Your task to perform on an android device: find snoozed emails in the gmail app Image 0: 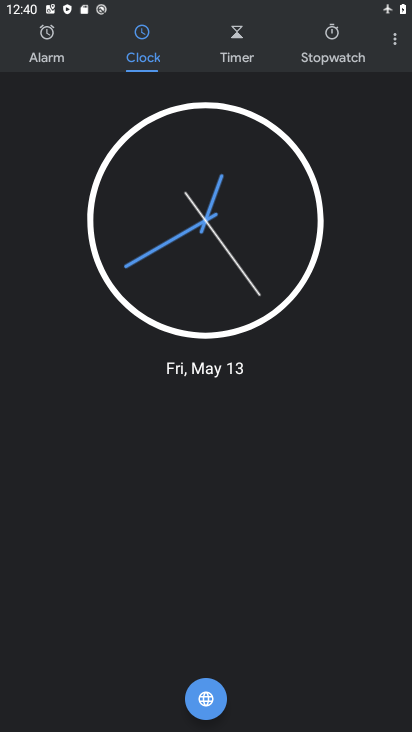
Step 0: press home button
Your task to perform on an android device: find snoozed emails in the gmail app Image 1: 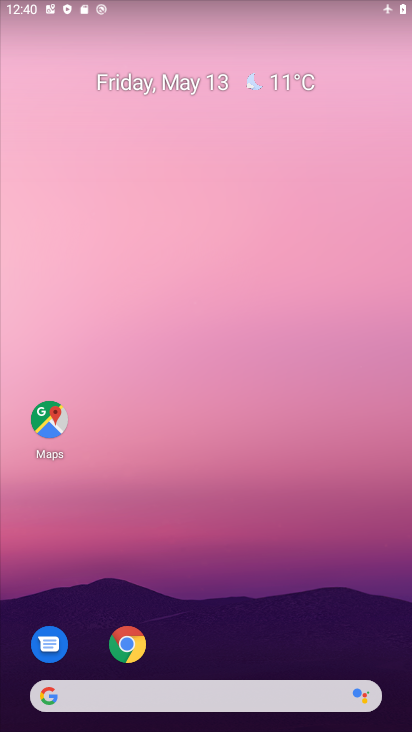
Step 1: drag from (226, 726) to (216, 163)
Your task to perform on an android device: find snoozed emails in the gmail app Image 2: 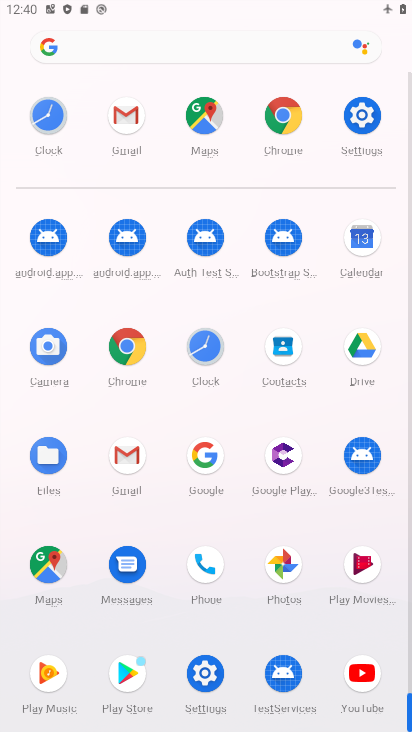
Step 2: click (130, 457)
Your task to perform on an android device: find snoozed emails in the gmail app Image 3: 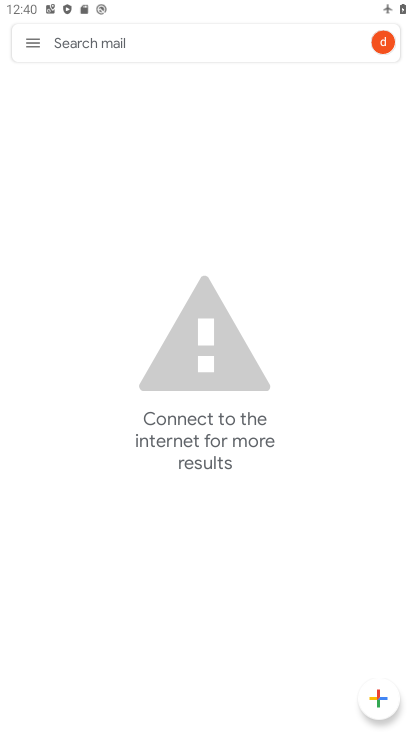
Step 3: click (29, 43)
Your task to perform on an android device: find snoozed emails in the gmail app Image 4: 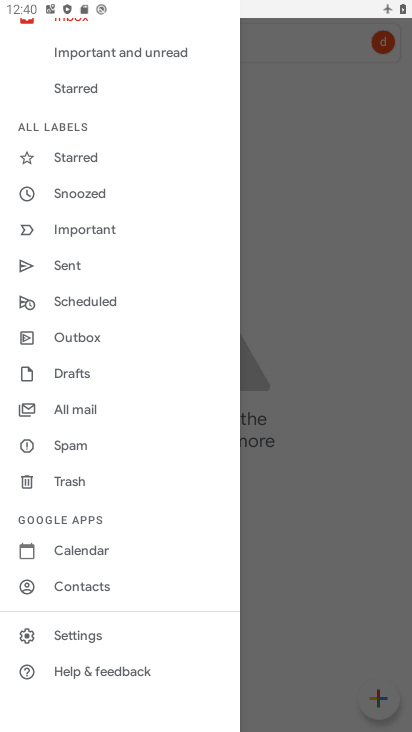
Step 4: click (84, 194)
Your task to perform on an android device: find snoozed emails in the gmail app Image 5: 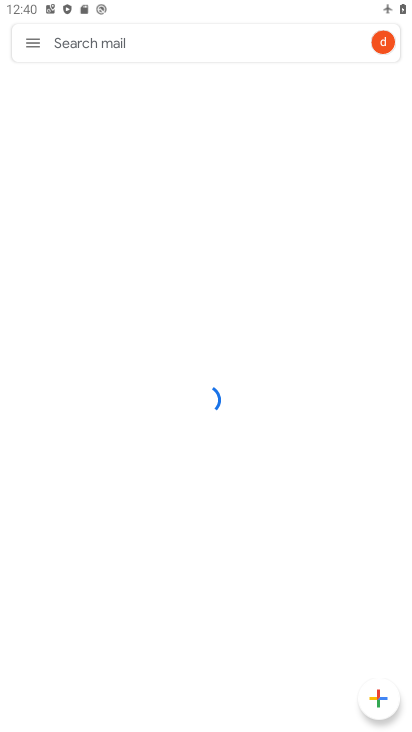
Step 5: task complete